Your task to perform on an android device: Open my contact list Image 0: 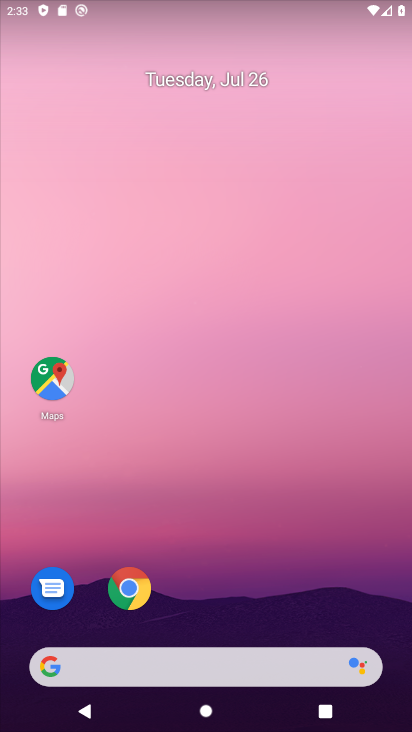
Step 0: drag from (298, 617) to (240, 271)
Your task to perform on an android device: Open my contact list Image 1: 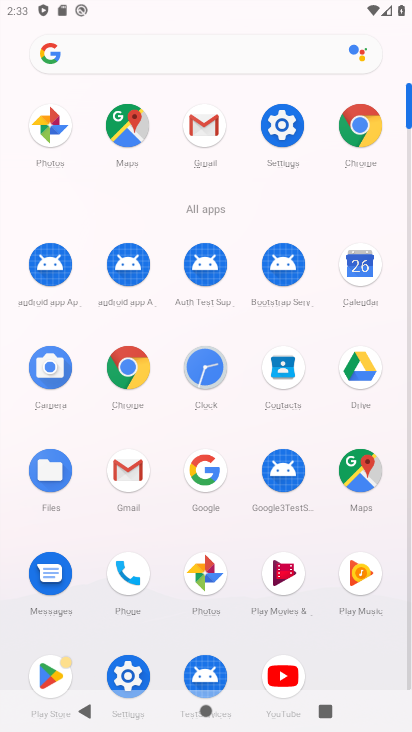
Step 1: click (291, 369)
Your task to perform on an android device: Open my contact list Image 2: 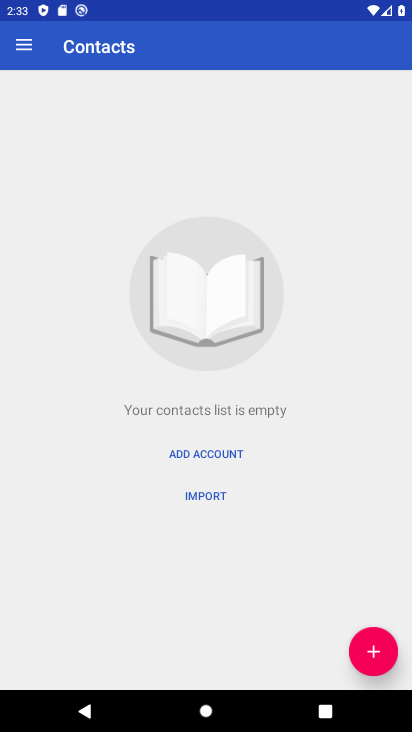
Step 2: task complete